Your task to perform on an android device: Open Yahoo.com Image 0: 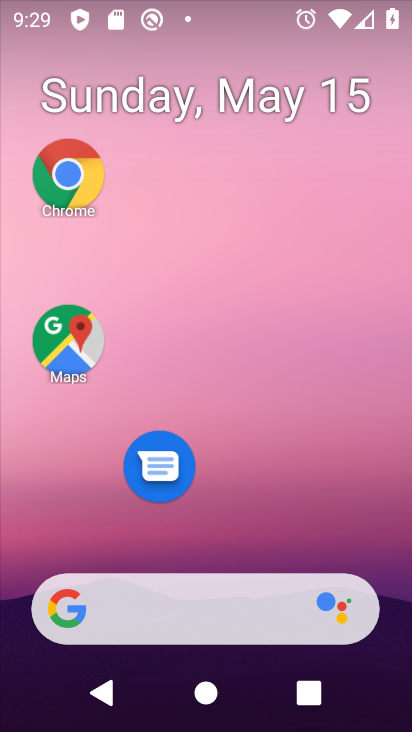
Step 0: click (71, 178)
Your task to perform on an android device: Open Yahoo.com Image 1: 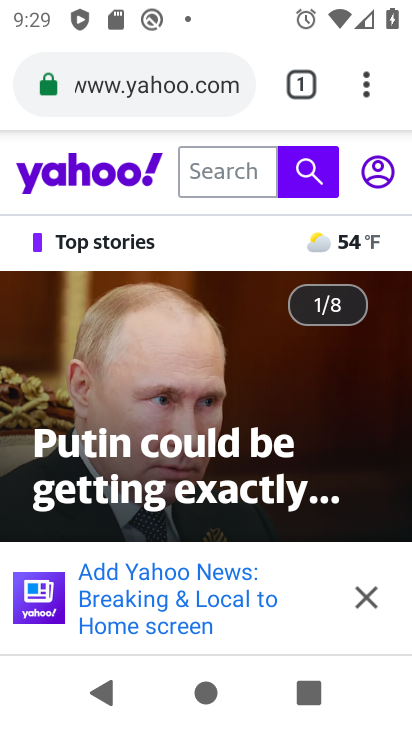
Step 1: task complete